Your task to perform on an android device: star an email in the gmail app Image 0: 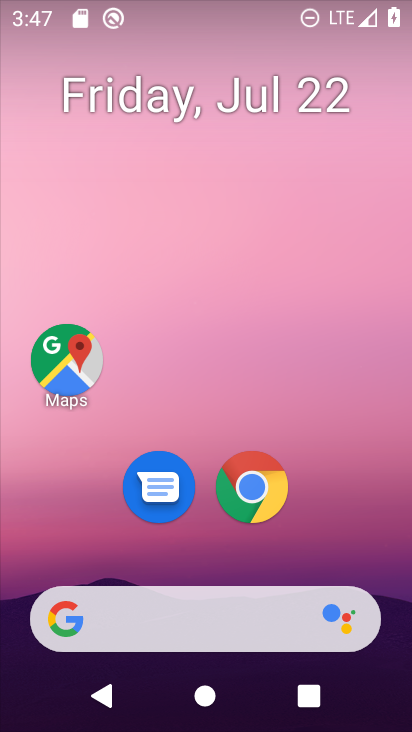
Step 0: drag from (168, 547) to (358, 4)
Your task to perform on an android device: star an email in the gmail app Image 1: 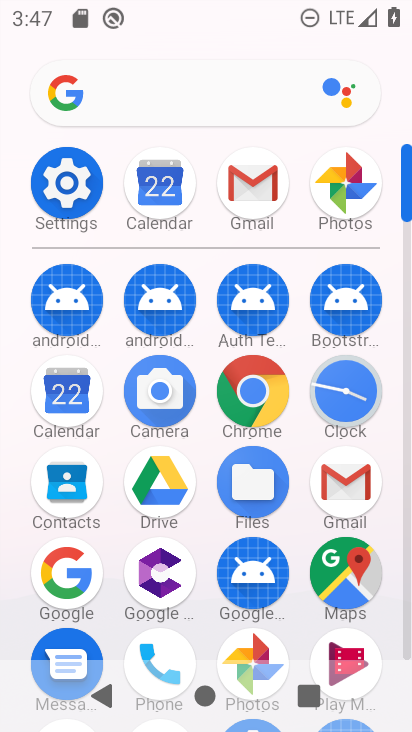
Step 1: click (252, 184)
Your task to perform on an android device: star an email in the gmail app Image 2: 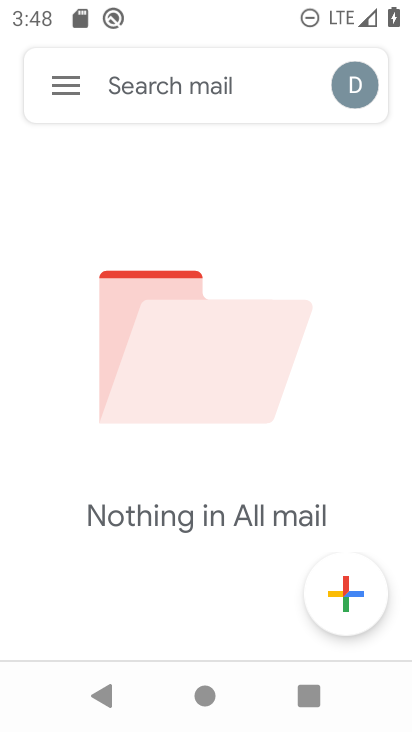
Step 2: task complete